Your task to perform on an android device: Check the news Image 0: 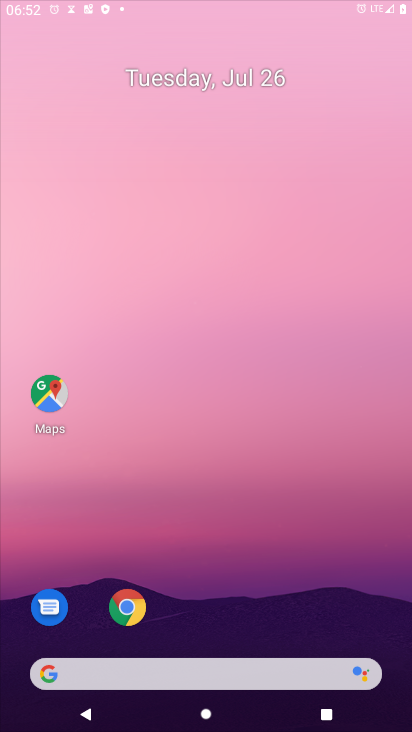
Step 0: press home button
Your task to perform on an android device: Check the news Image 1: 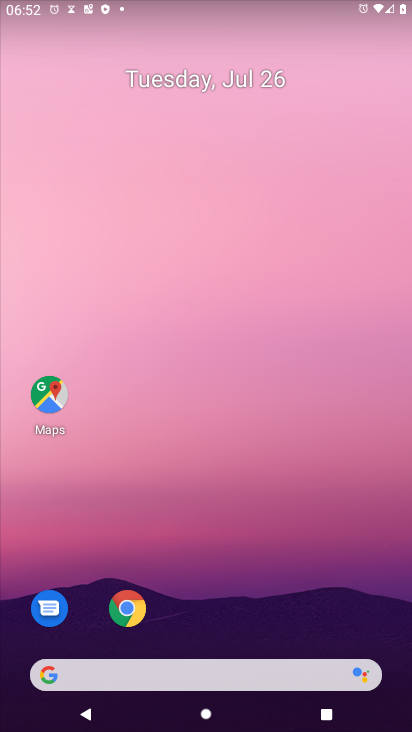
Step 1: click (49, 680)
Your task to perform on an android device: Check the news Image 2: 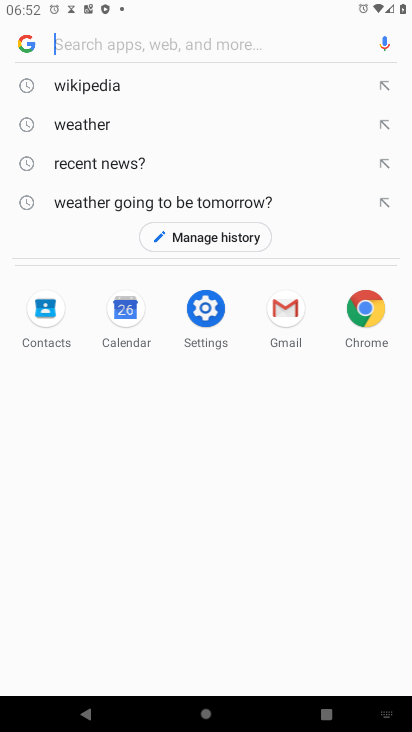
Step 2: type " news"
Your task to perform on an android device: Check the news Image 3: 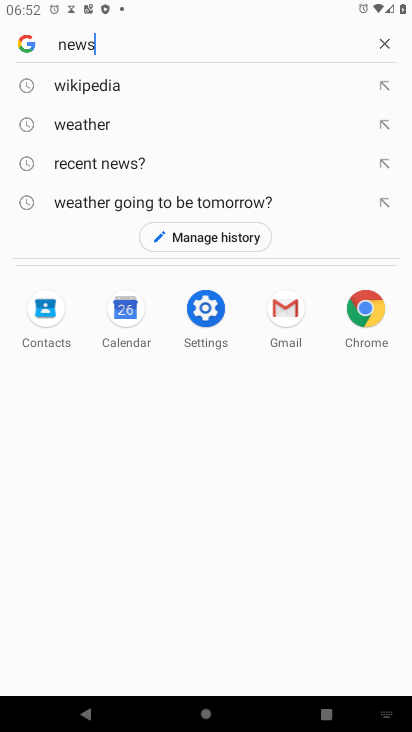
Step 3: press enter
Your task to perform on an android device: Check the news Image 4: 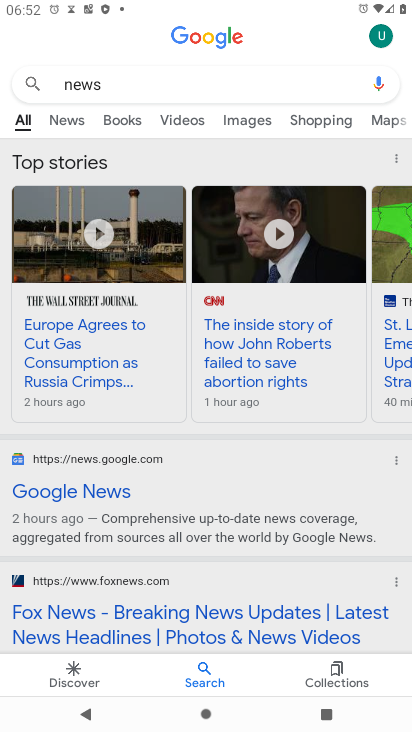
Step 4: task complete